Your task to perform on an android device: Open internet settings Image 0: 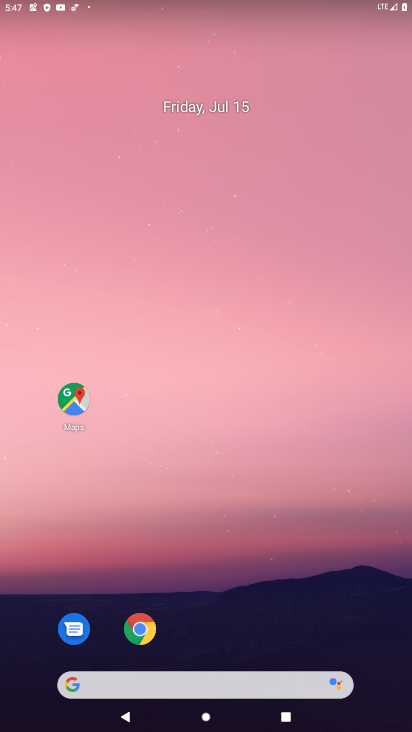
Step 0: press home button
Your task to perform on an android device: Open internet settings Image 1: 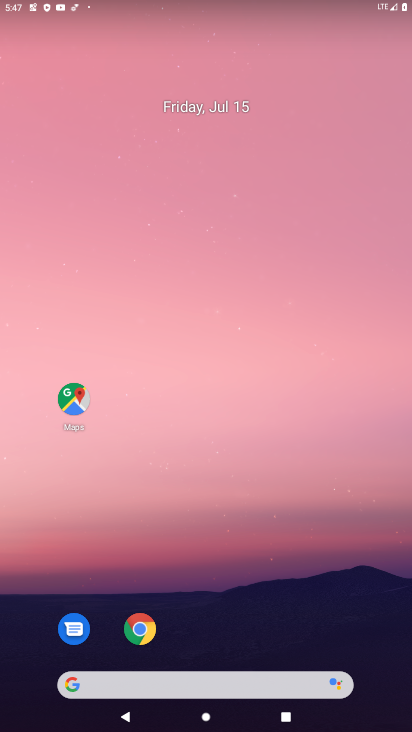
Step 1: drag from (232, 647) to (133, 6)
Your task to perform on an android device: Open internet settings Image 2: 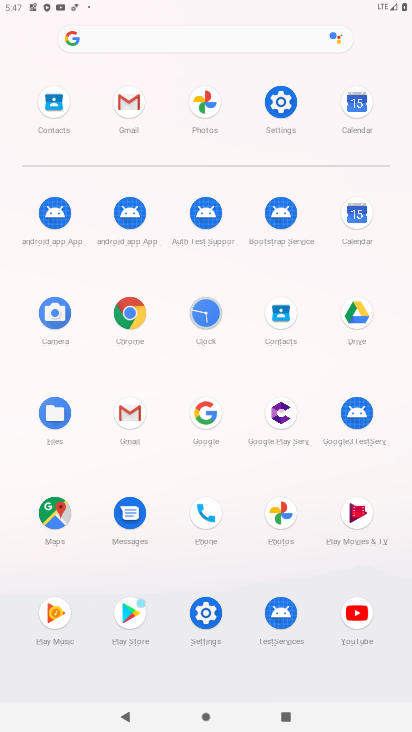
Step 2: click (277, 143)
Your task to perform on an android device: Open internet settings Image 3: 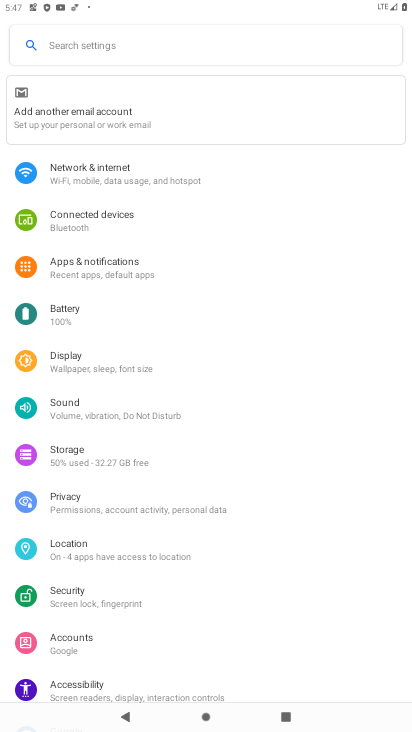
Step 3: click (84, 173)
Your task to perform on an android device: Open internet settings Image 4: 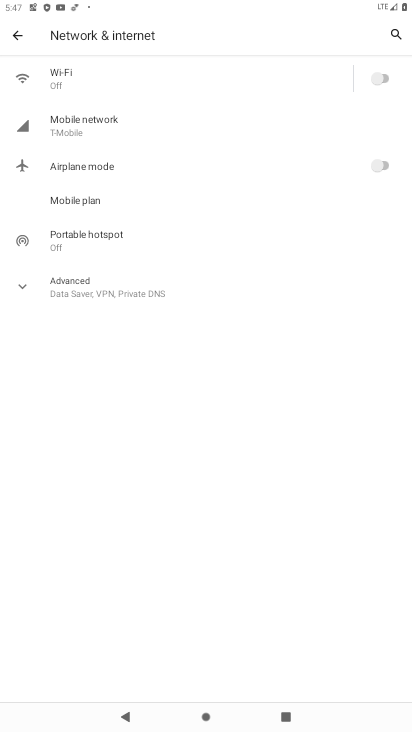
Step 4: task complete